Your task to perform on an android device: Open calendar and show me the fourth week of next month Image 0: 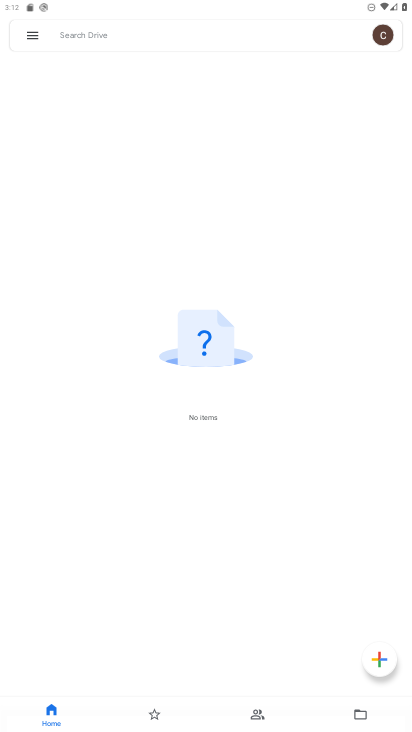
Step 0: press home button
Your task to perform on an android device: Open calendar and show me the fourth week of next month Image 1: 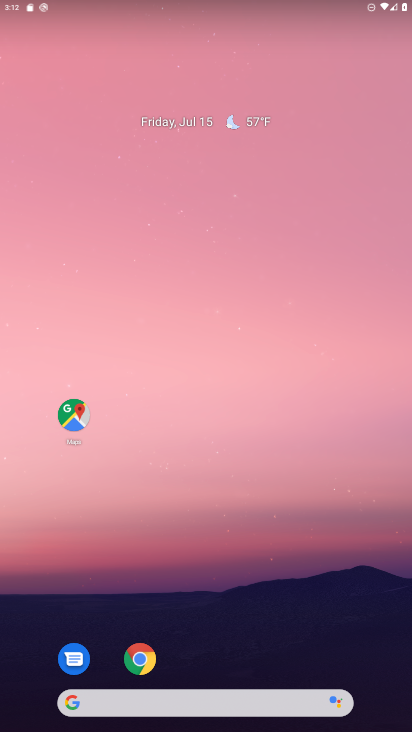
Step 1: drag from (218, 652) to (197, 3)
Your task to perform on an android device: Open calendar and show me the fourth week of next month Image 2: 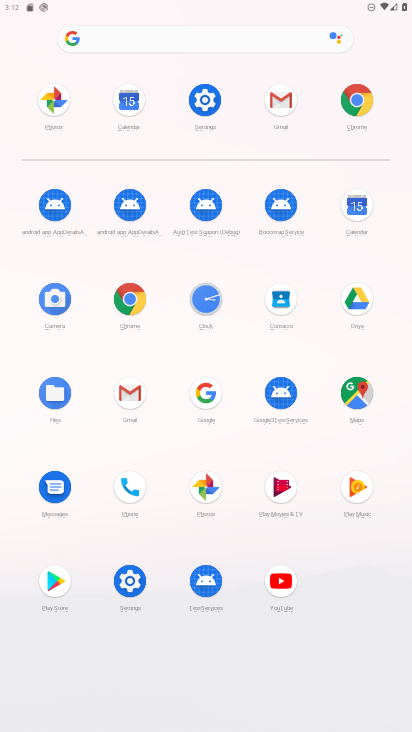
Step 2: click (362, 220)
Your task to perform on an android device: Open calendar and show me the fourth week of next month Image 3: 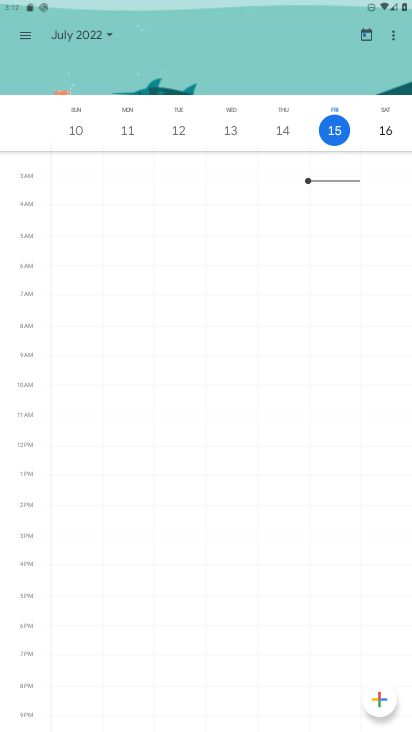
Step 3: task complete